Your task to perform on an android device: add a label to a message in the gmail app Image 0: 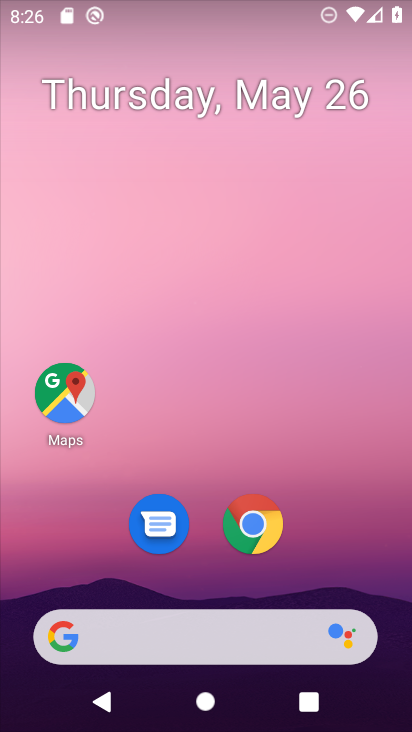
Step 0: drag from (340, 437) to (266, 134)
Your task to perform on an android device: add a label to a message in the gmail app Image 1: 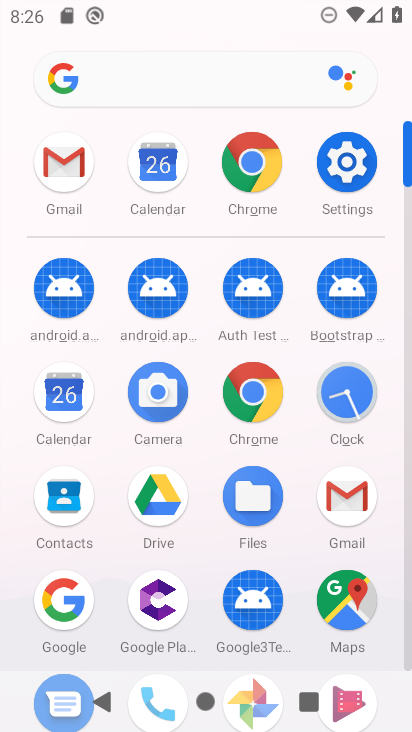
Step 1: click (345, 498)
Your task to perform on an android device: add a label to a message in the gmail app Image 2: 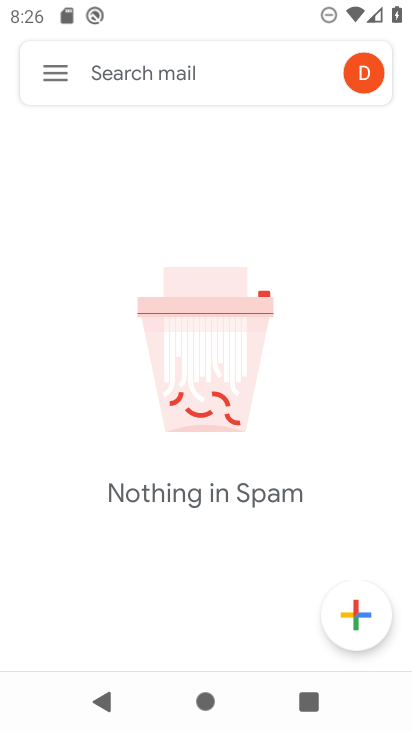
Step 2: click (54, 63)
Your task to perform on an android device: add a label to a message in the gmail app Image 3: 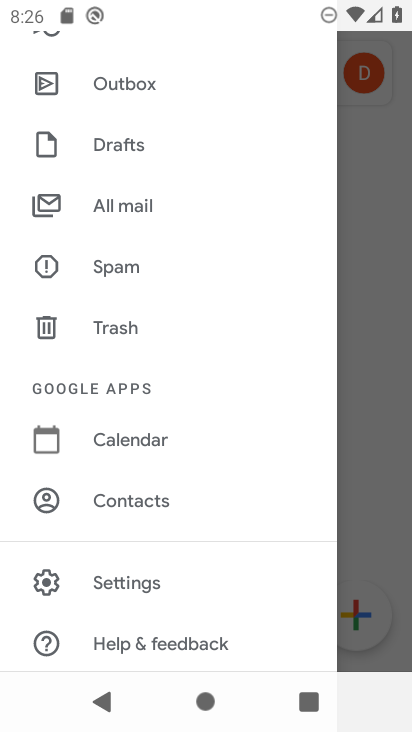
Step 3: click (124, 194)
Your task to perform on an android device: add a label to a message in the gmail app Image 4: 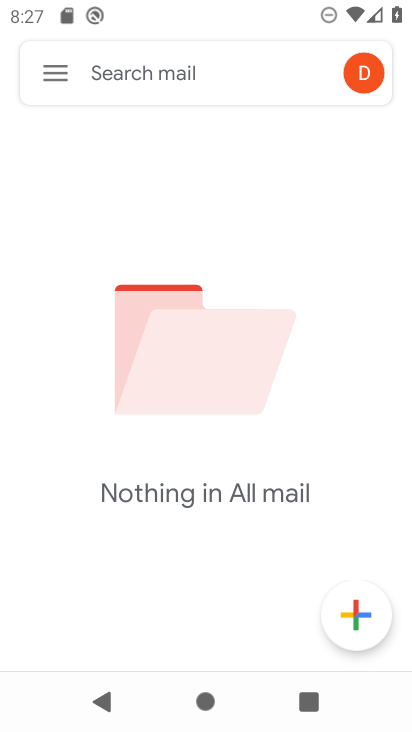
Step 4: task complete